Your task to perform on an android device: change text size in settings app Image 0: 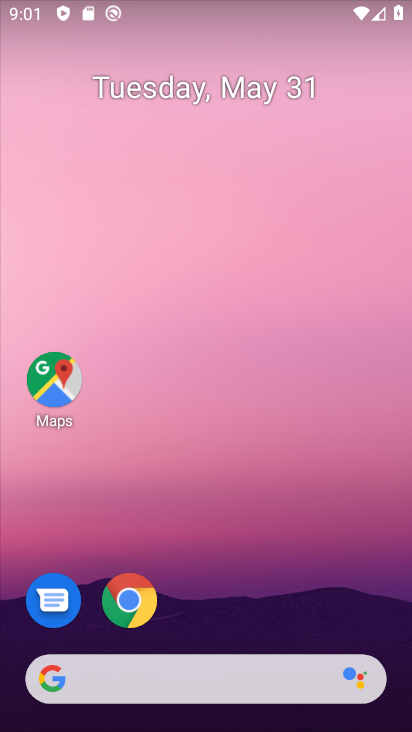
Step 0: press home button
Your task to perform on an android device: change text size in settings app Image 1: 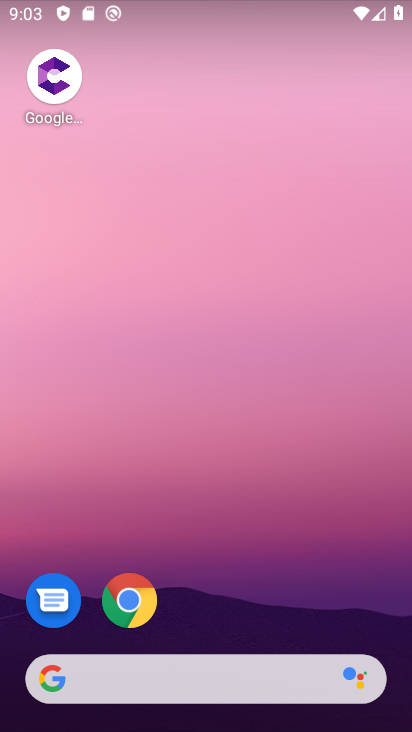
Step 1: drag from (252, 693) to (317, 240)
Your task to perform on an android device: change text size in settings app Image 2: 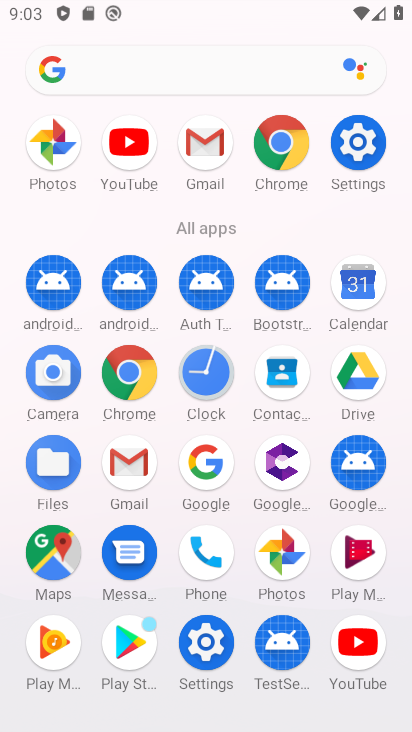
Step 2: click (355, 155)
Your task to perform on an android device: change text size in settings app Image 3: 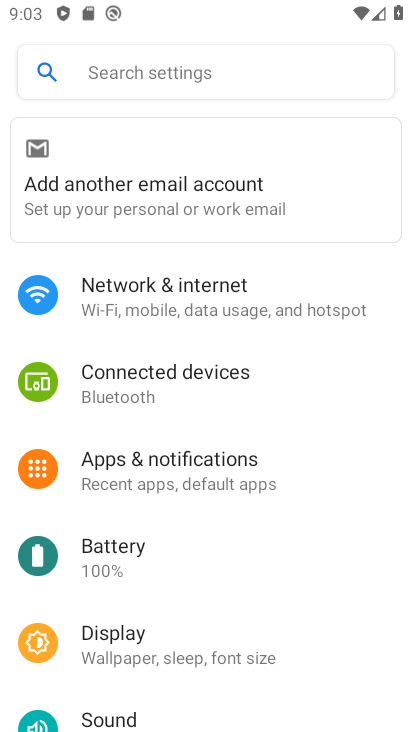
Step 3: click (151, 76)
Your task to perform on an android device: change text size in settings app Image 4: 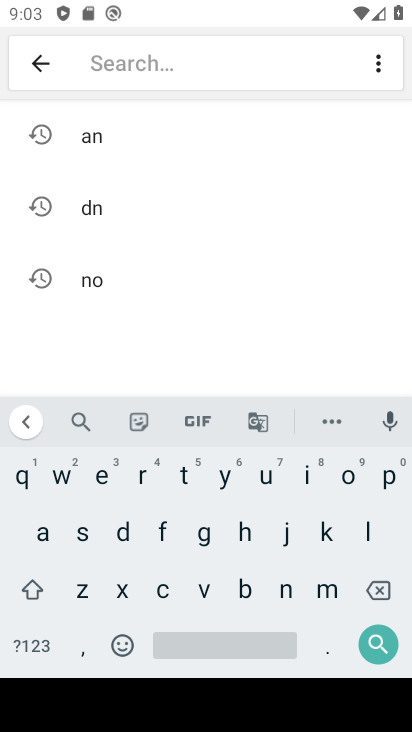
Step 4: click (80, 533)
Your task to perform on an android device: change text size in settings app Image 5: 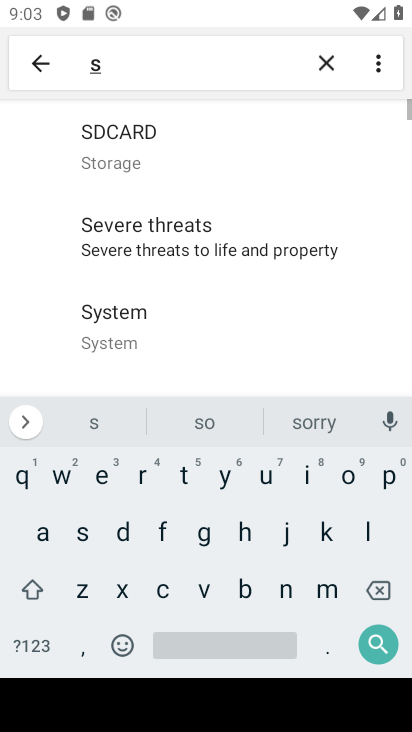
Step 5: click (302, 479)
Your task to perform on an android device: change text size in settings app Image 6: 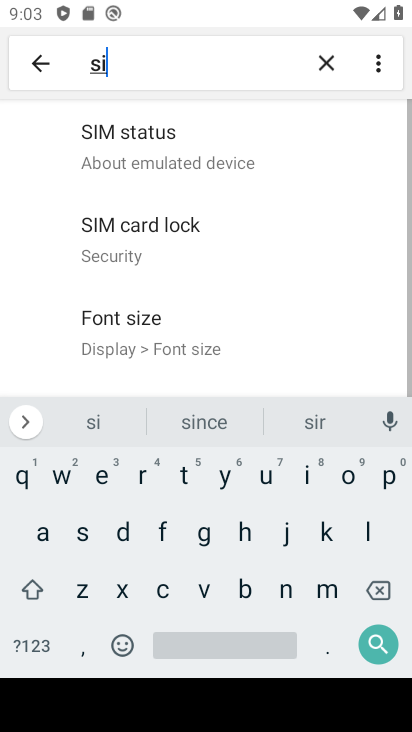
Step 6: click (81, 591)
Your task to perform on an android device: change text size in settings app Image 7: 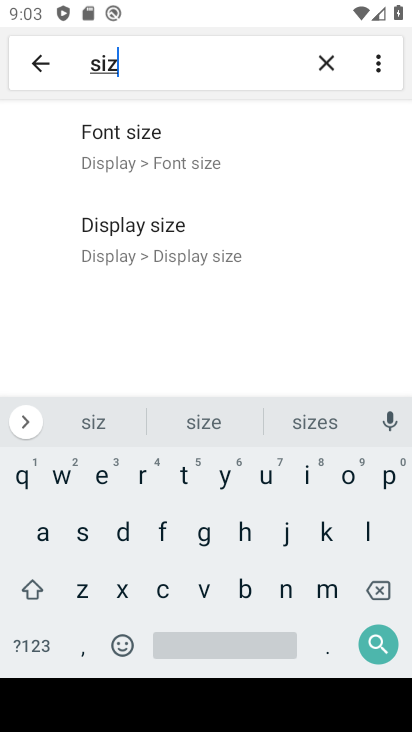
Step 7: click (190, 151)
Your task to perform on an android device: change text size in settings app Image 8: 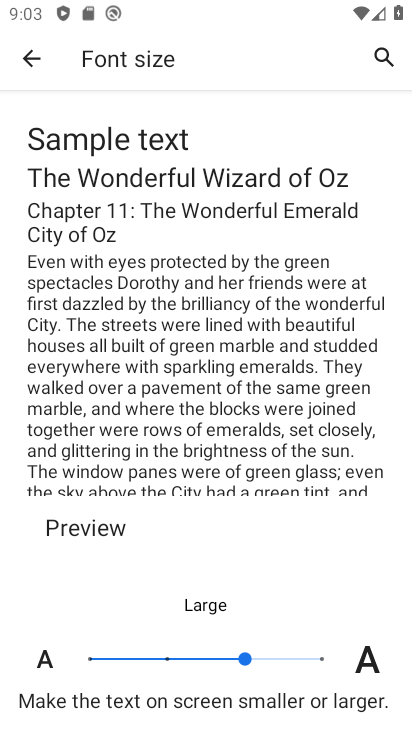
Step 8: click (311, 649)
Your task to perform on an android device: change text size in settings app Image 9: 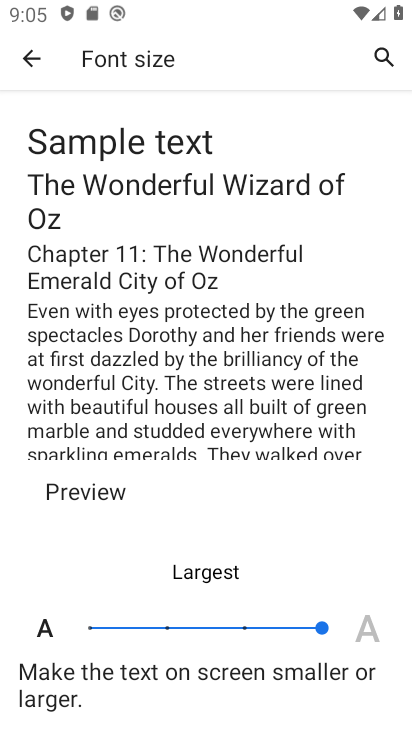
Step 9: task complete